Your task to perform on an android device: Search for sushi restaurants on Maps Image 0: 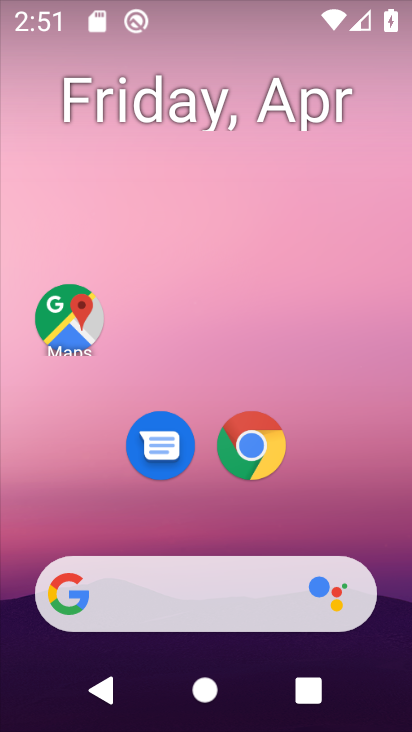
Step 0: click (82, 314)
Your task to perform on an android device: Search for sushi restaurants on Maps Image 1: 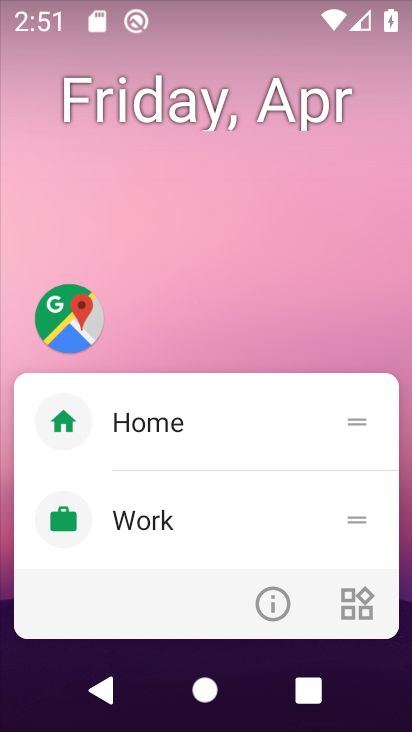
Step 1: click (89, 321)
Your task to perform on an android device: Search for sushi restaurants on Maps Image 2: 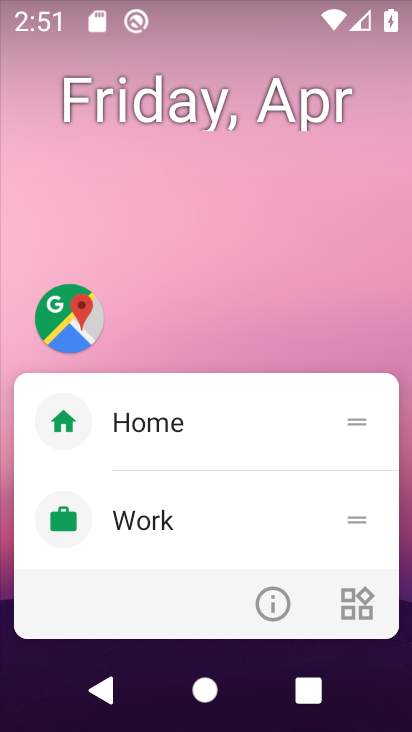
Step 2: click (89, 321)
Your task to perform on an android device: Search for sushi restaurants on Maps Image 3: 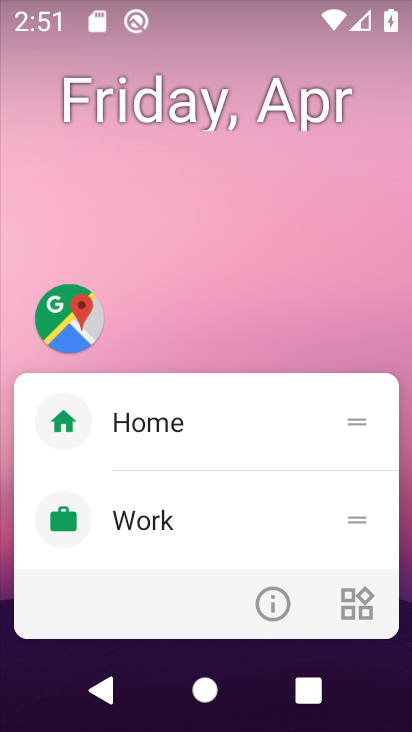
Step 3: click (79, 323)
Your task to perform on an android device: Search for sushi restaurants on Maps Image 4: 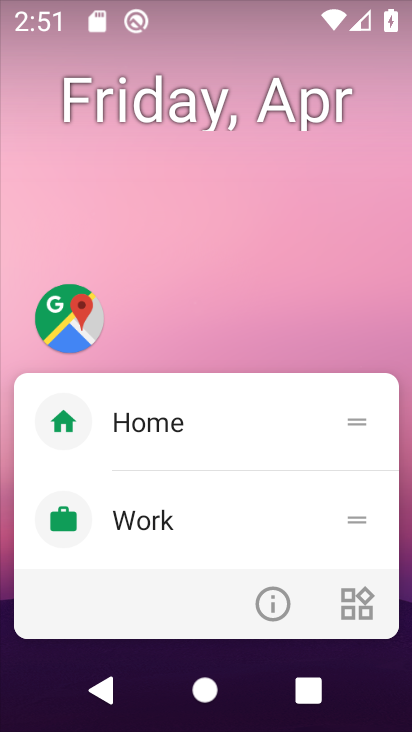
Step 4: click (72, 323)
Your task to perform on an android device: Search for sushi restaurants on Maps Image 5: 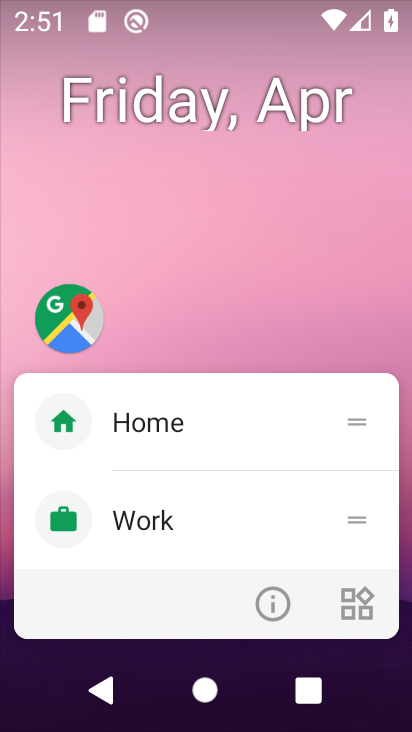
Step 5: click (63, 321)
Your task to perform on an android device: Search for sushi restaurants on Maps Image 6: 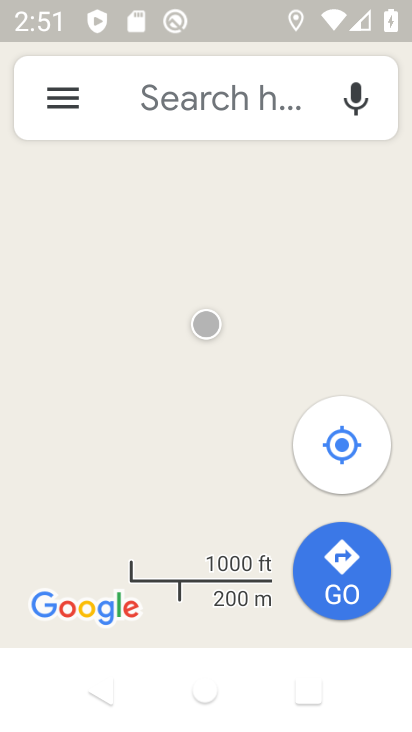
Step 6: click (167, 117)
Your task to perform on an android device: Search for sushi restaurants on Maps Image 7: 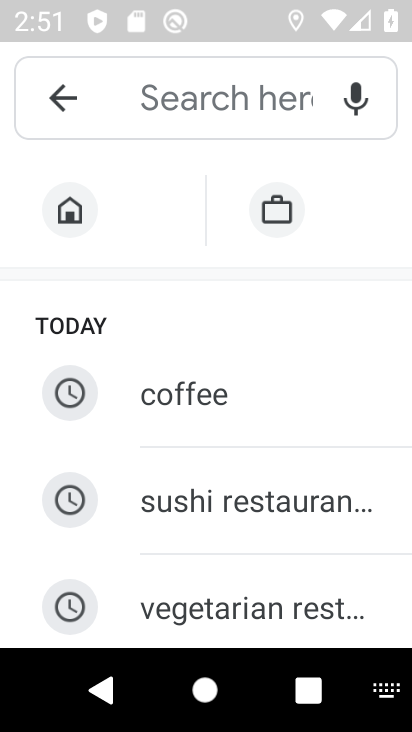
Step 7: click (189, 501)
Your task to perform on an android device: Search for sushi restaurants on Maps Image 8: 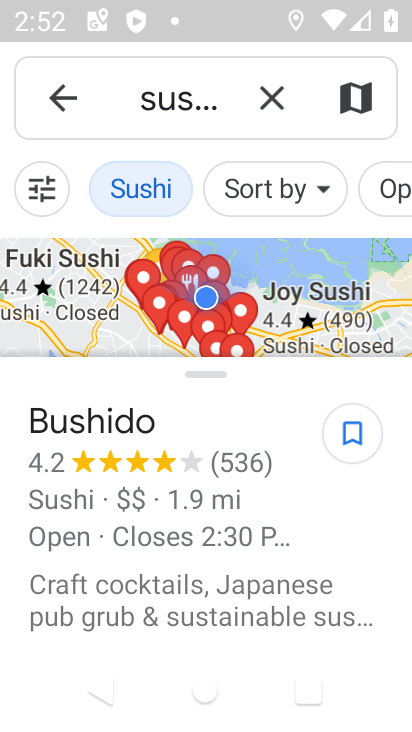
Step 8: task complete